Your task to perform on an android device: Show me popular games on the Play Store Image 0: 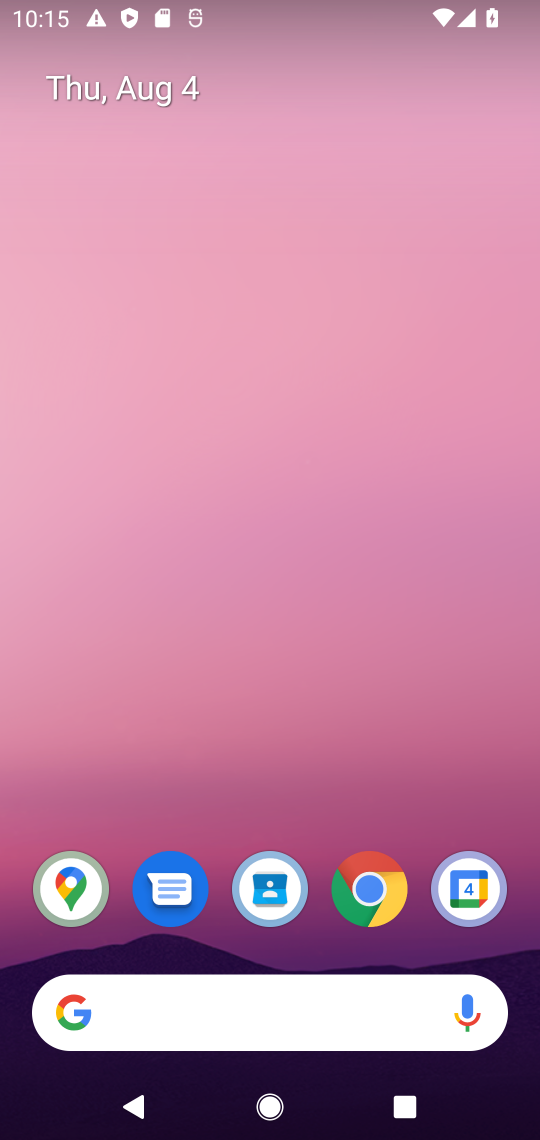
Step 0: press home button
Your task to perform on an android device: Show me popular games on the Play Store Image 1: 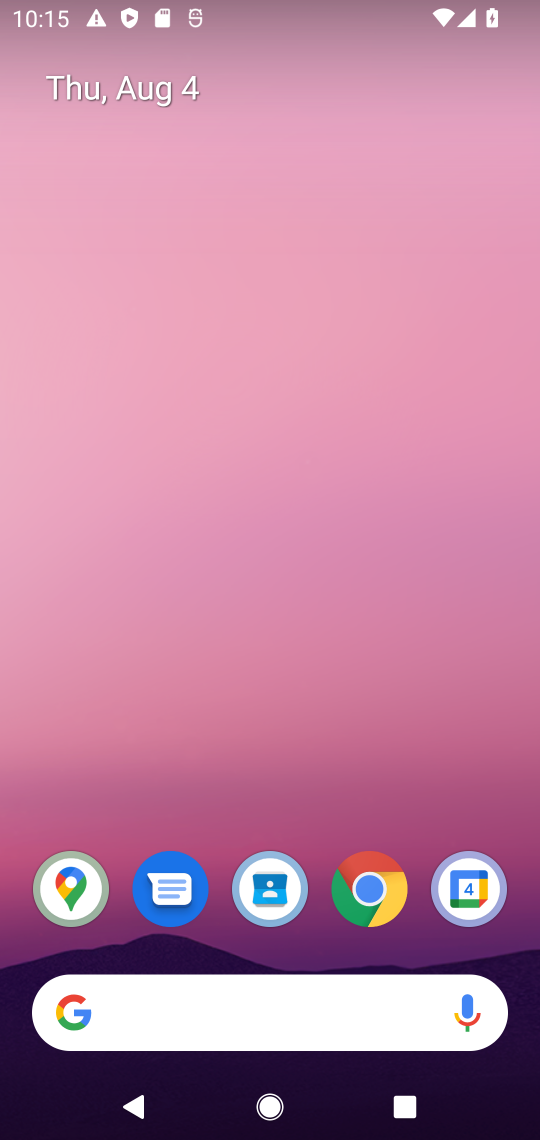
Step 1: drag from (412, 798) to (410, 424)
Your task to perform on an android device: Show me popular games on the Play Store Image 2: 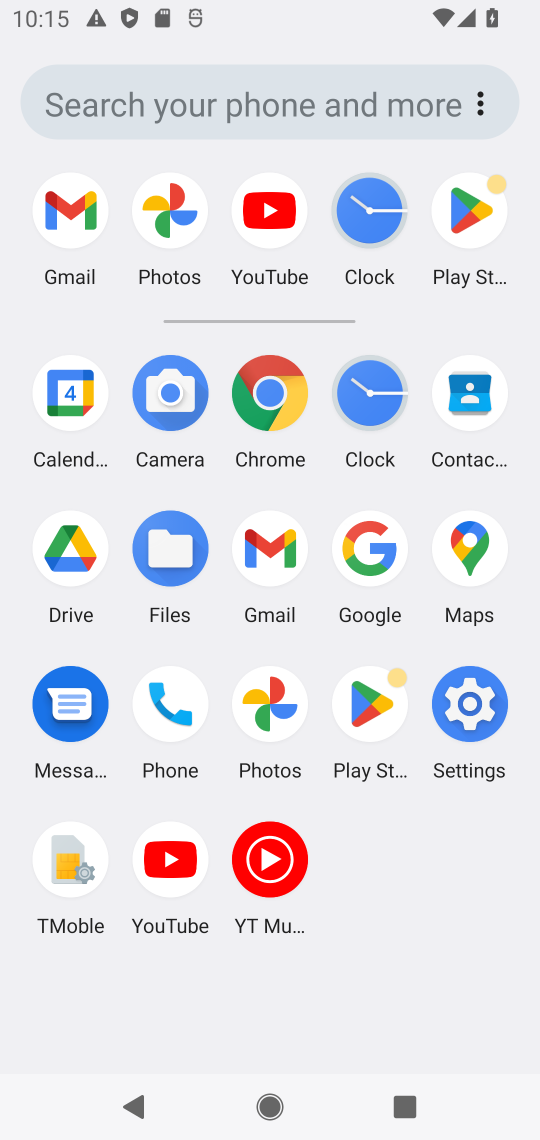
Step 2: click (349, 698)
Your task to perform on an android device: Show me popular games on the Play Store Image 3: 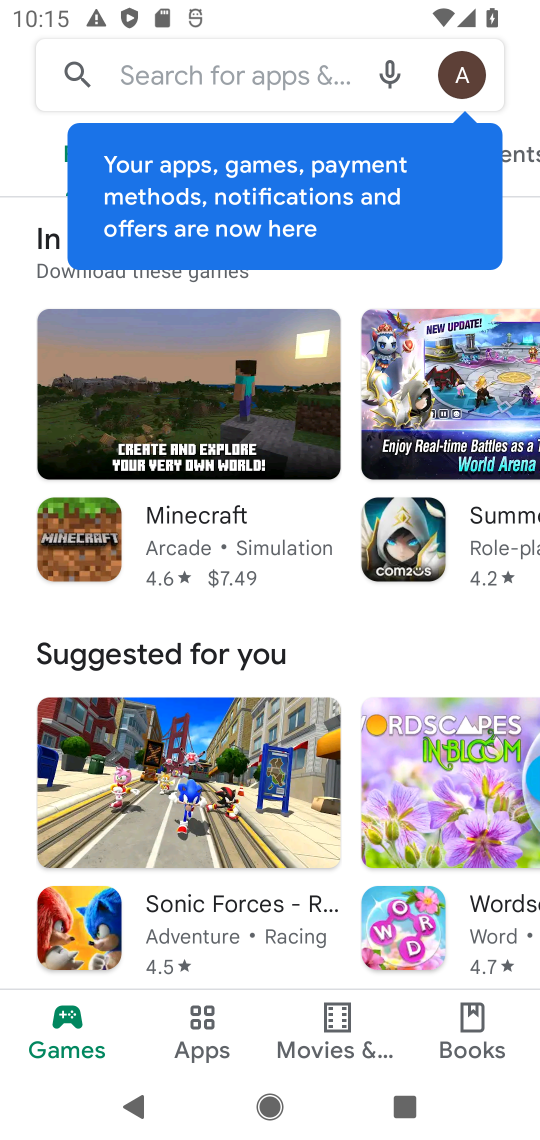
Step 3: task complete